Your task to perform on an android device: Open Google Maps Image 0: 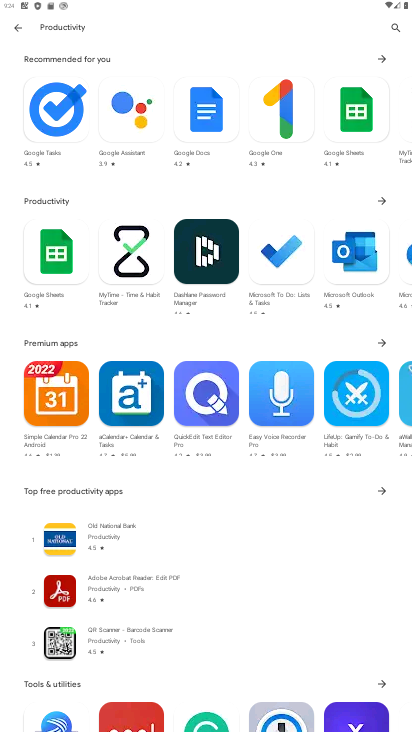
Step 0: press home button
Your task to perform on an android device: Open Google Maps Image 1: 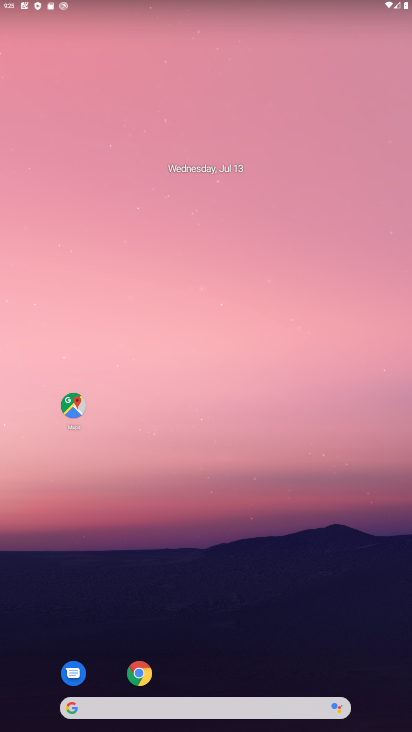
Step 1: click (76, 400)
Your task to perform on an android device: Open Google Maps Image 2: 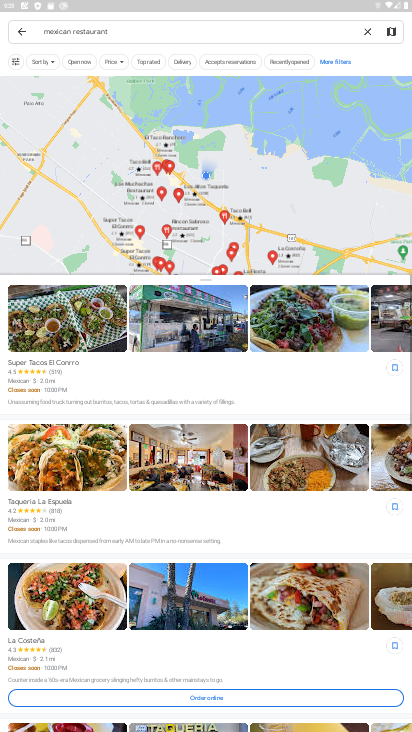
Step 2: task complete